Your task to perform on an android device: toggle wifi Image 0: 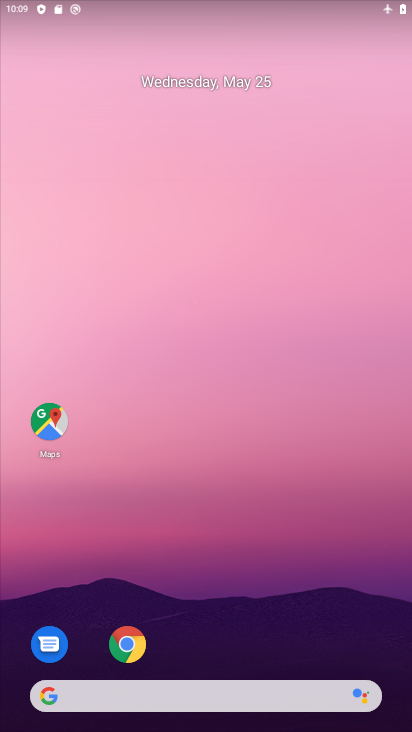
Step 0: drag from (221, 622) to (269, 151)
Your task to perform on an android device: toggle wifi Image 1: 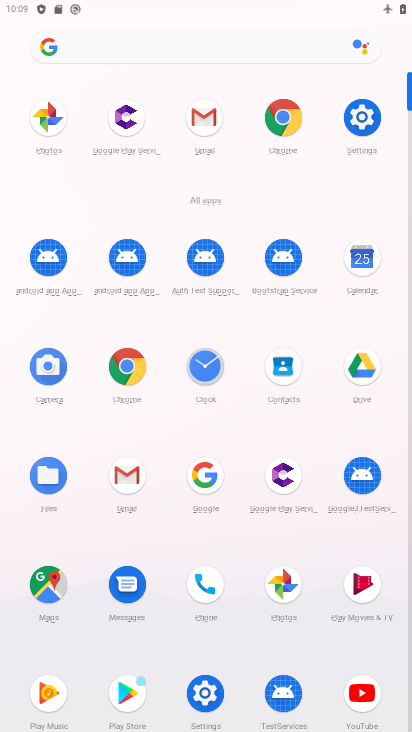
Step 1: click (365, 119)
Your task to perform on an android device: toggle wifi Image 2: 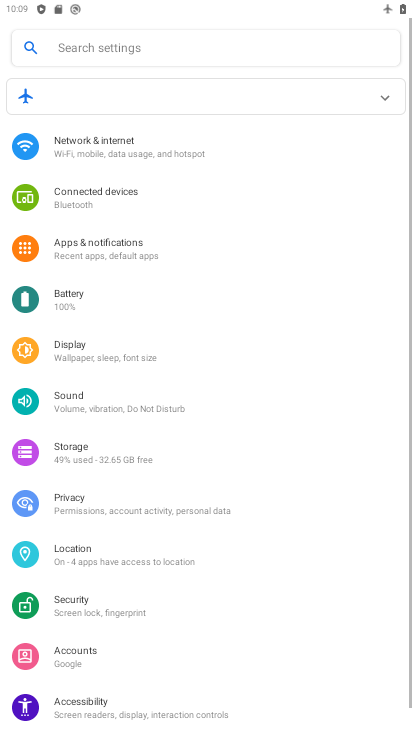
Step 2: click (155, 136)
Your task to perform on an android device: toggle wifi Image 3: 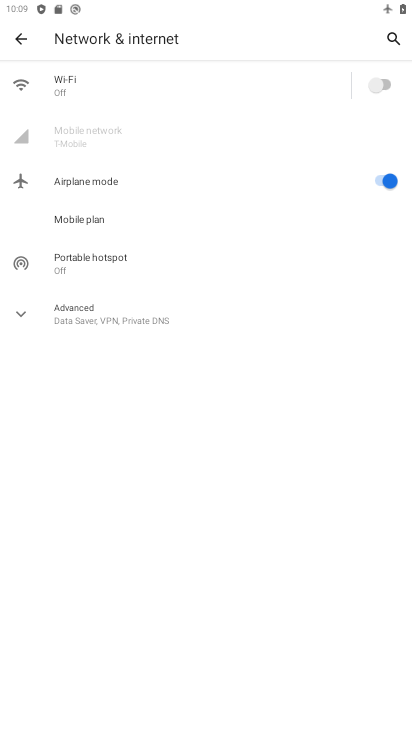
Step 3: click (388, 85)
Your task to perform on an android device: toggle wifi Image 4: 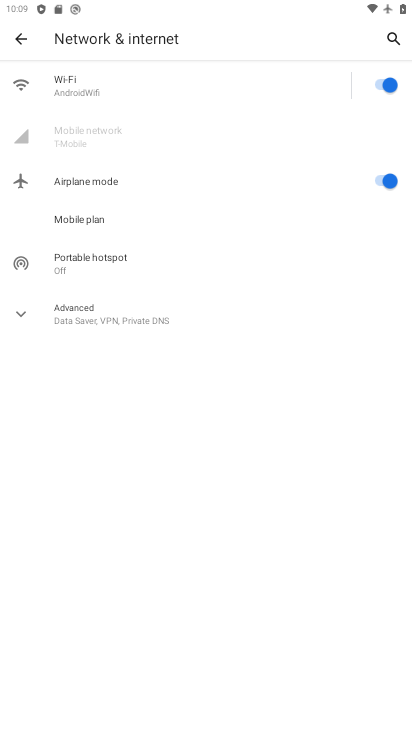
Step 4: task complete